Your task to perform on an android device: turn on location history Image 0: 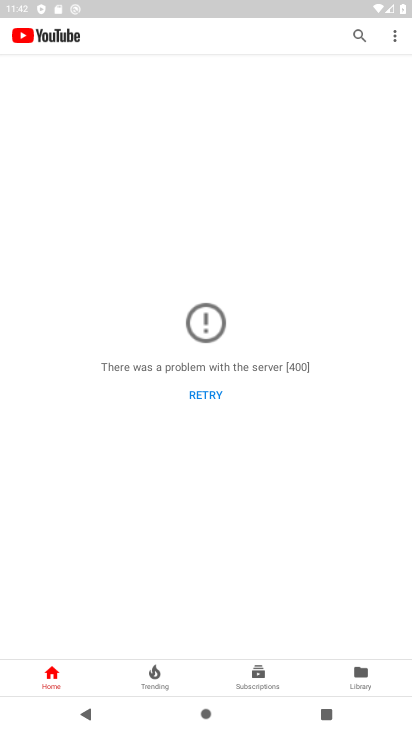
Step 0: press home button
Your task to perform on an android device: turn on location history Image 1: 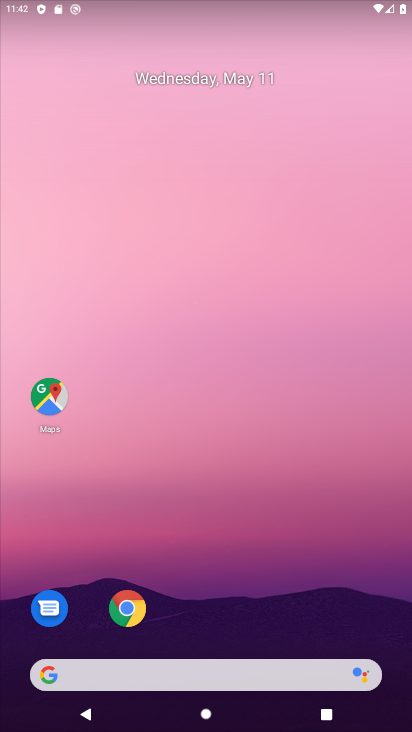
Step 1: click (56, 391)
Your task to perform on an android device: turn on location history Image 2: 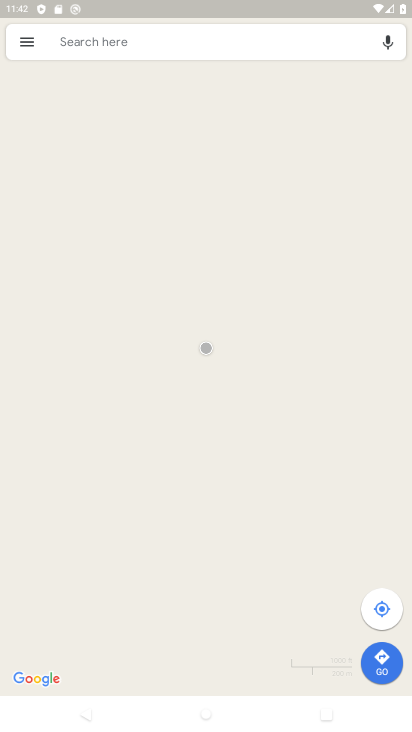
Step 2: click (27, 41)
Your task to perform on an android device: turn on location history Image 3: 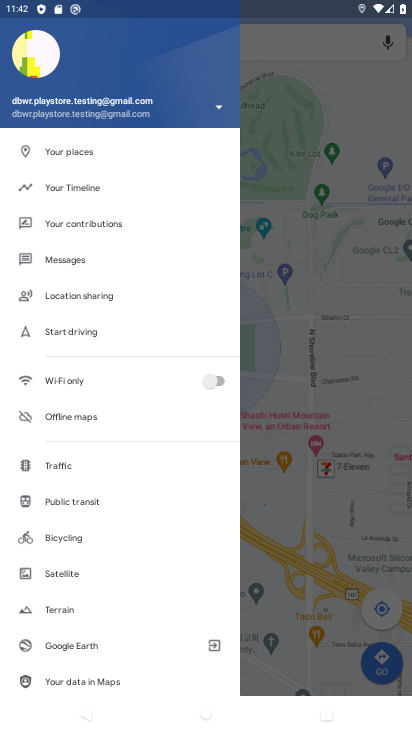
Step 3: click (77, 184)
Your task to perform on an android device: turn on location history Image 4: 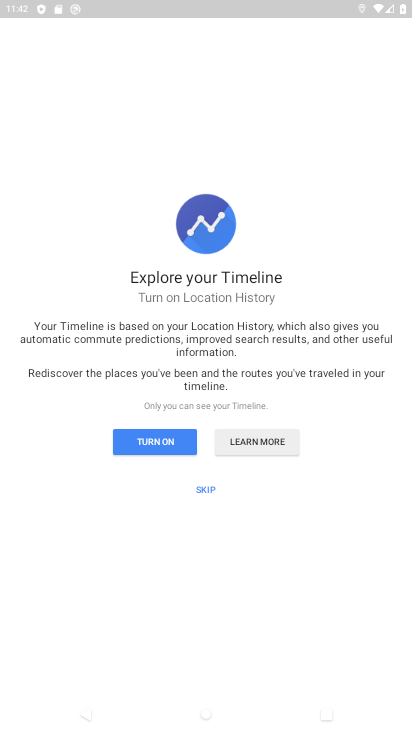
Step 4: click (206, 494)
Your task to perform on an android device: turn on location history Image 5: 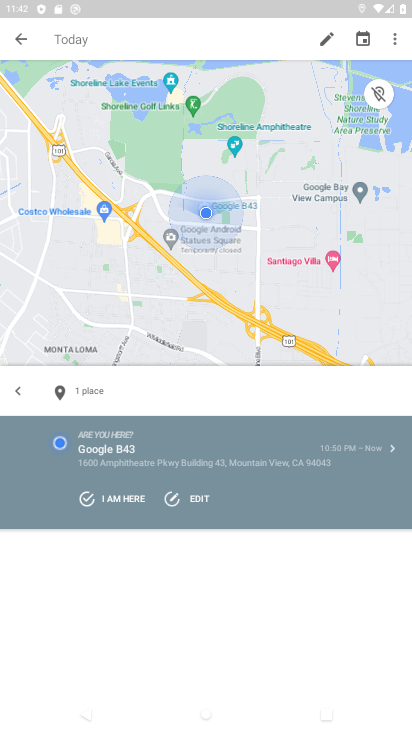
Step 5: click (397, 39)
Your task to perform on an android device: turn on location history Image 6: 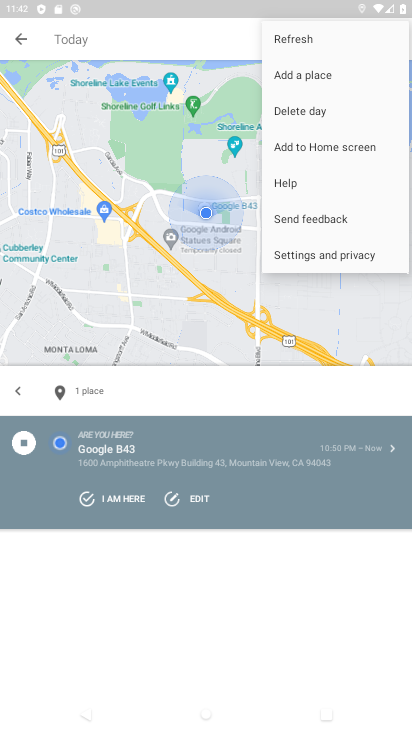
Step 6: click (324, 255)
Your task to perform on an android device: turn on location history Image 7: 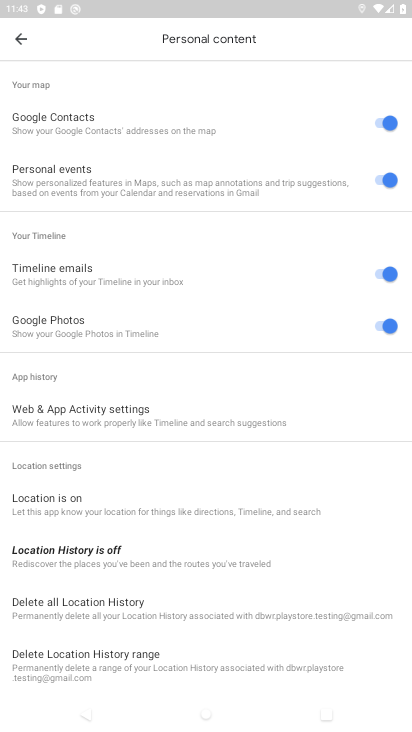
Step 7: click (81, 556)
Your task to perform on an android device: turn on location history Image 8: 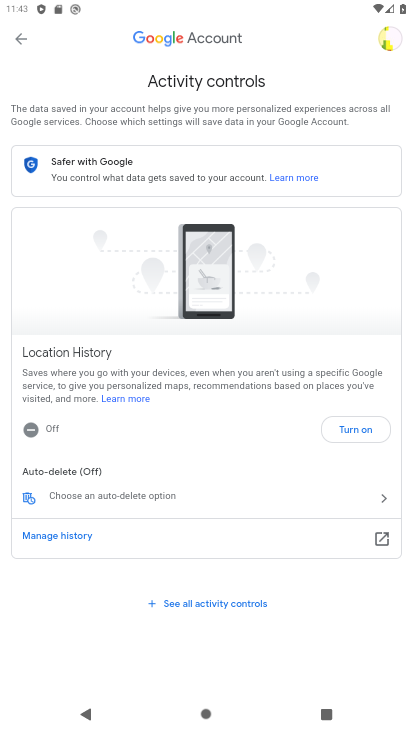
Step 8: click (338, 434)
Your task to perform on an android device: turn on location history Image 9: 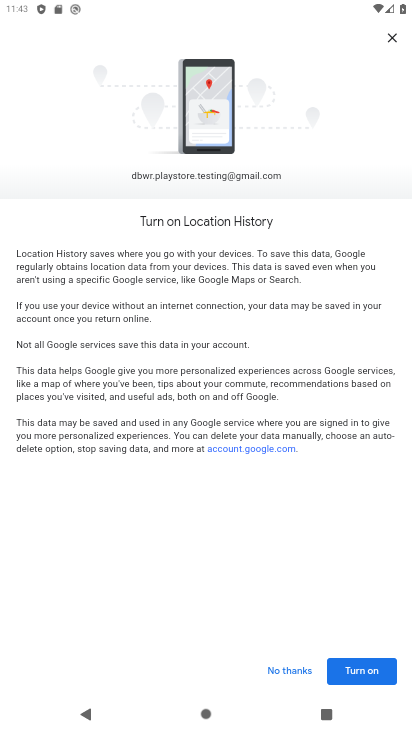
Step 9: click (371, 659)
Your task to perform on an android device: turn on location history Image 10: 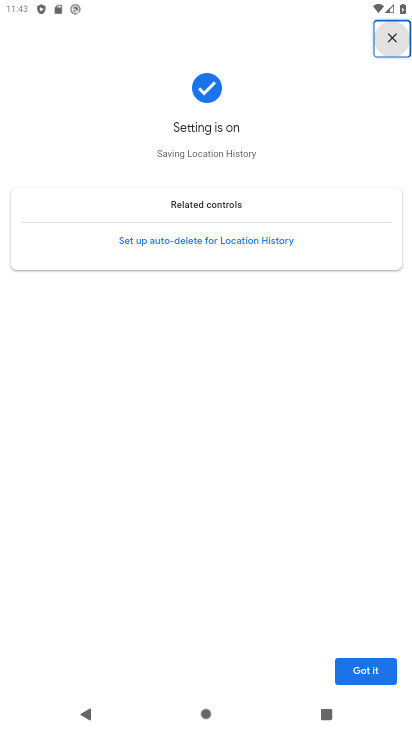
Step 10: click (371, 659)
Your task to perform on an android device: turn on location history Image 11: 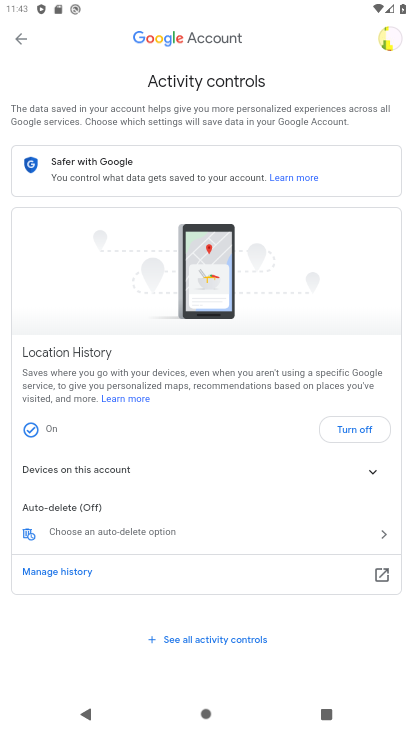
Step 11: task complete